Your task to perform on an android device: turn on the 12-hour format for clock Image 0: 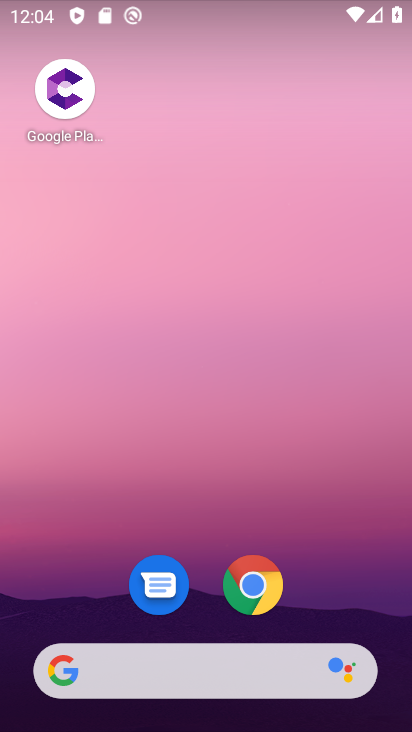
Step 0: drag from (215, 528) to (274, 10)
Your task to perform on an android device: turn on the 12-hour format for clock Image 1: 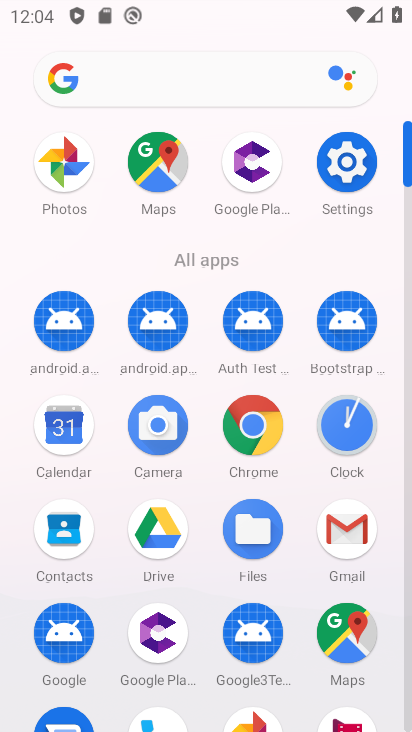
Step 1: click (352, 428)
Your task to perform on an android device: turn on the 12-hour format for clock Image 2: 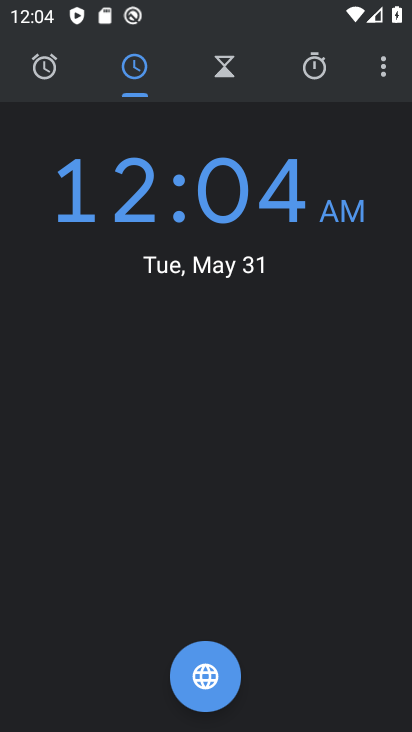
Step 2: click (380, 74)
Your task to perform on an android device: turn on the 12-hour format for clock Image 3: 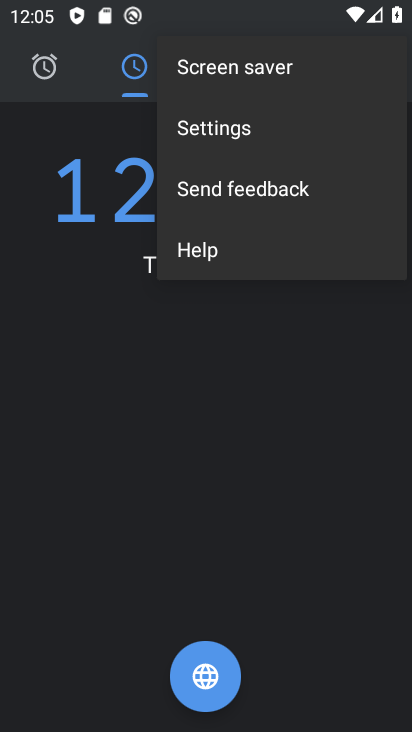
Step 3: click (266, 128)
Your task to perform on an android device: turn on the 12-hour format for clock Image 4: 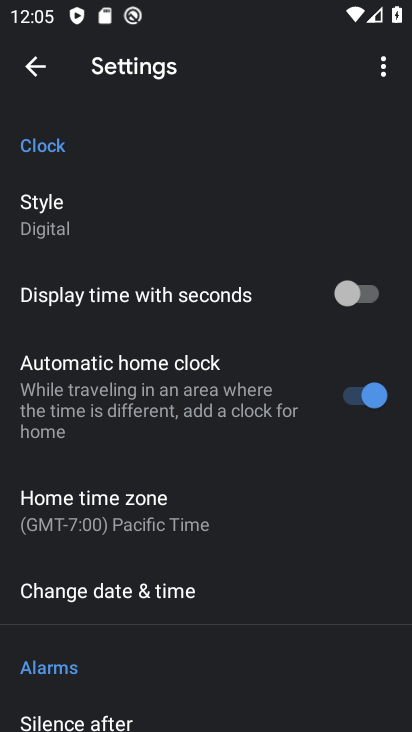
Step 4: click (242, 592)
Your task to perform on an android device: turn on the 12-hour format for clock Image 5: 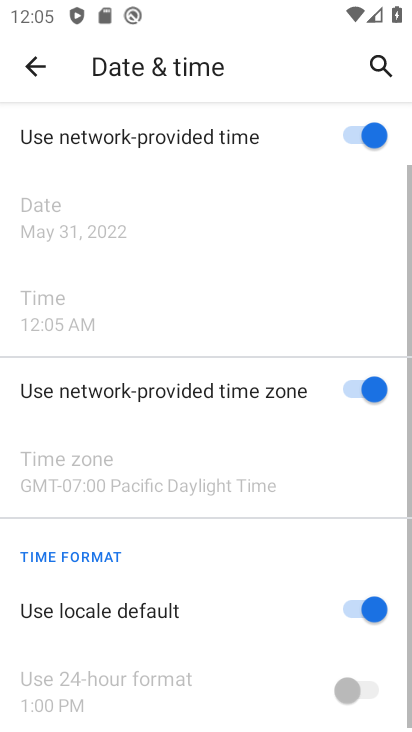
Step 5: task complete